Your task to perform on an android device: Check the news Image 0: 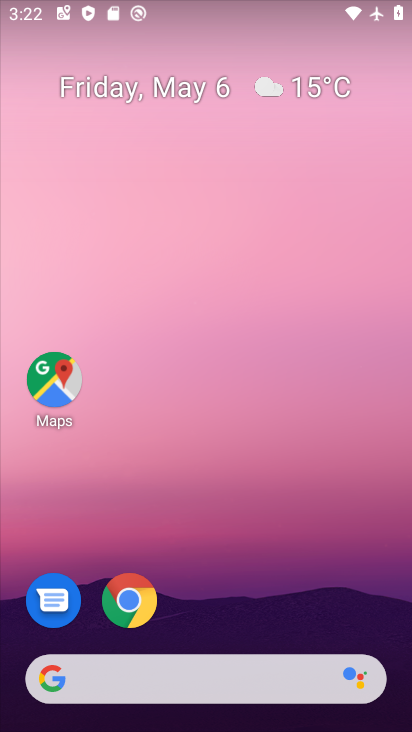
Step 0: drag from (300, 526) to (153, 15)
Your task to perform on an android device: Check the news Image 1: 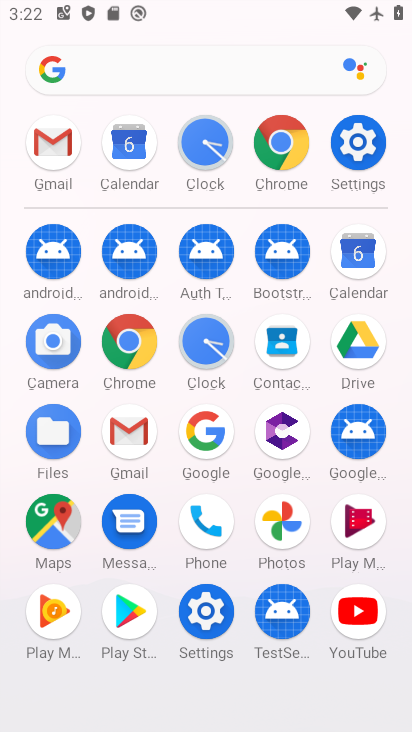
Step 1: drag from (6, 548) to (25, 195)
Your task to perform on an android device: Check the news Image 2: 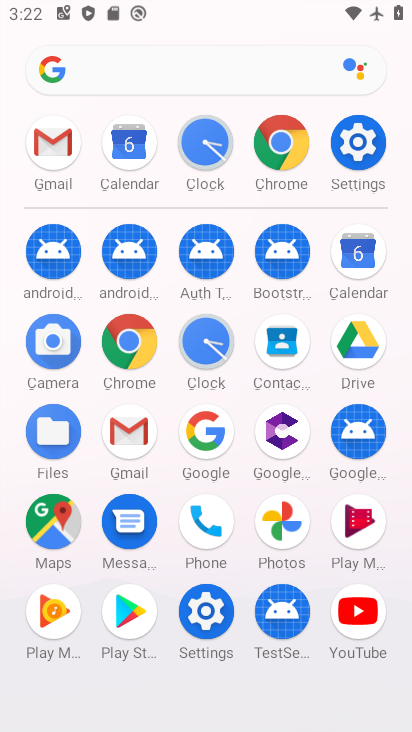
Step 2: click (127, 338)
Your task to perform on an android device: Check the news Image 3: 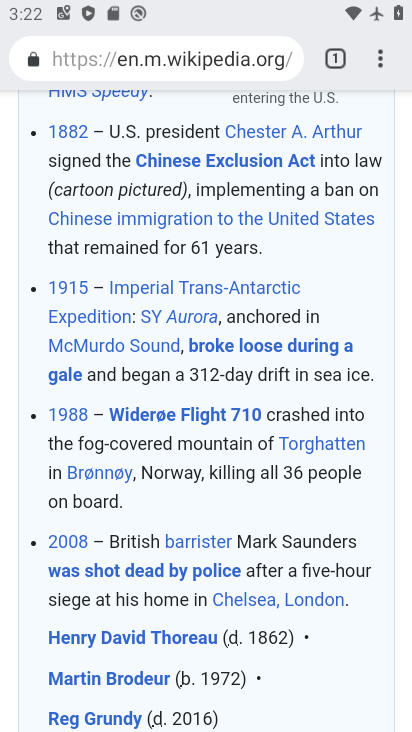
Step 3: click (148, 50)
Your task to perform on an android device: Check the news Image 4: 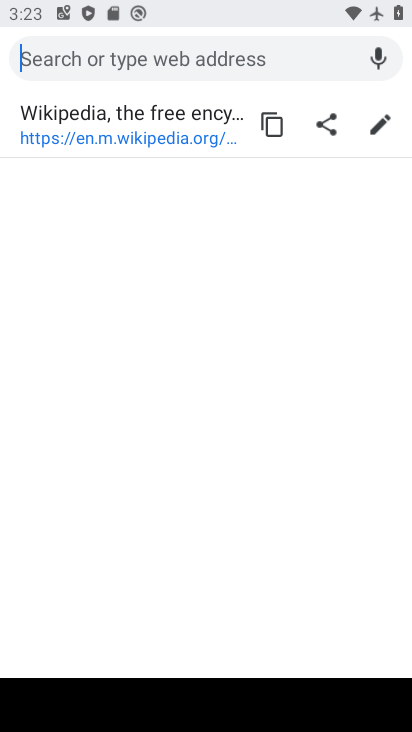
Step 4: type "Check the news"
Your task to perform on an android device: Check the news Image 5: 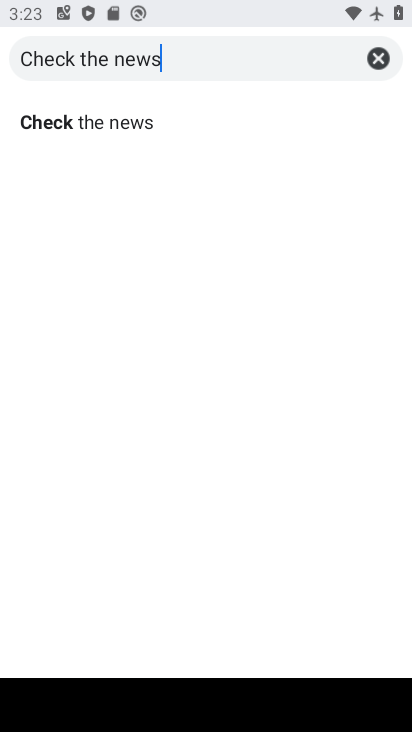
Step 5: type ""
Your task to perform on an android device: Check the news Image 6: 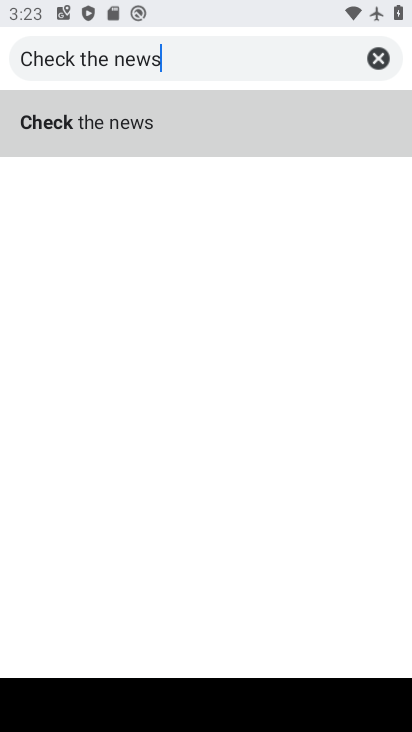
Step 6: click (114, 120)
Your task to perform on an android device: Check the news Image 7: 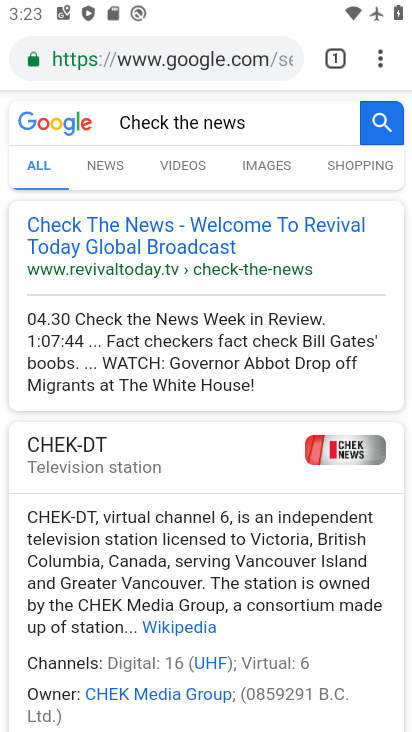
Step 7: click (98, 246)
Your task to perform on an android device: Check the news Image 8: 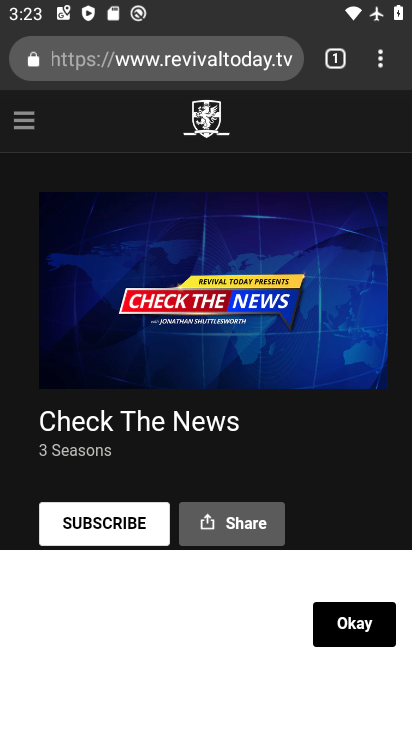
Step 8: press back button
Your task to perform on an android device: Check the news Image 9: 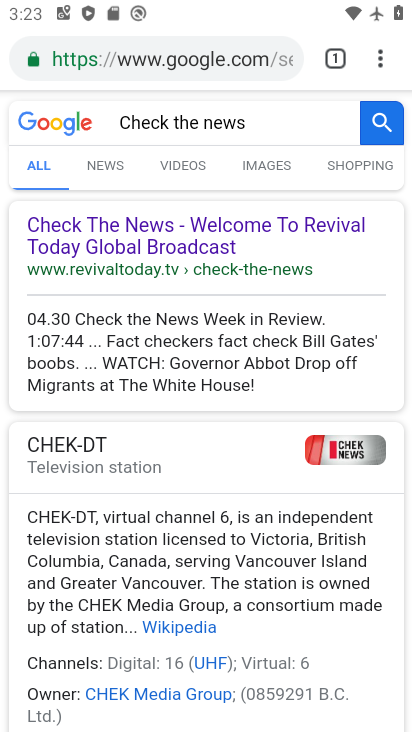
Step 9: click (102, 158)
Your task to perform on an android device: Check the news Image 10: 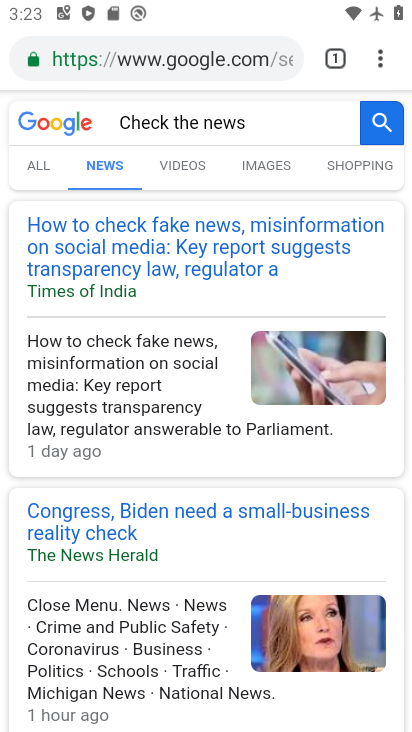
Step 10: task complete